Your task to perform on an android device: Play the last video I watched on Youtube Image 0: 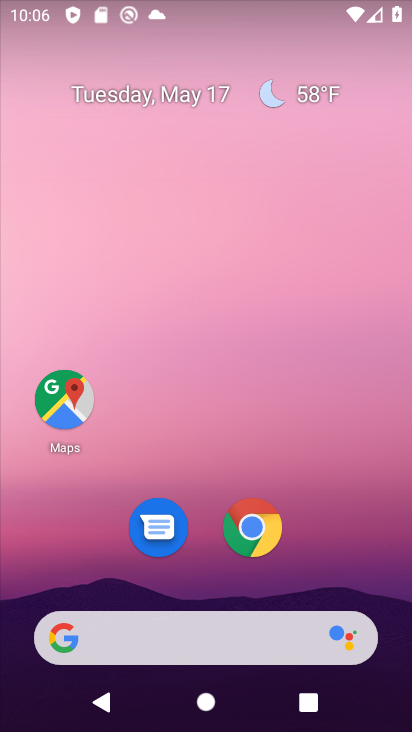
Step 0: drag from (343, 517) to (324, 0)
Your task to perform on an android device: Play the last video I watched on Youtube Image 1: 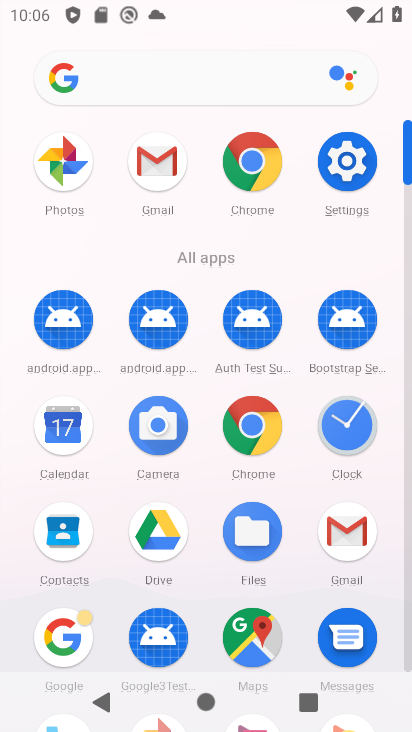
Step 1: drag from (411, 626) to (407, 576)
Your task to perform on an android device: Play the last video I watched on Youtube Image 2: 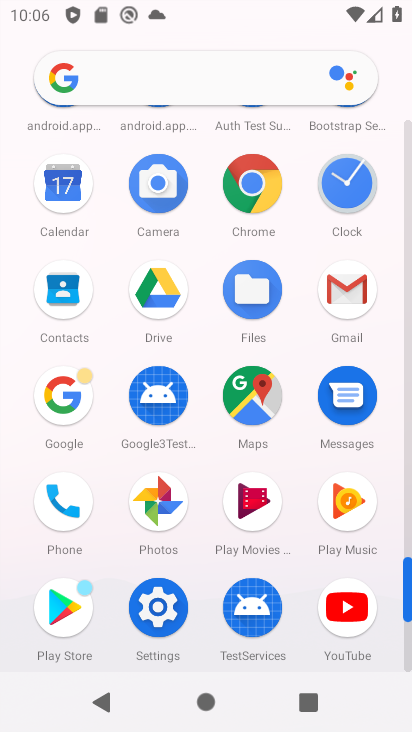
Step 2: click (358, 612)
Your task to perform on an android device: Play the last video I watched on Youtube Image 3: 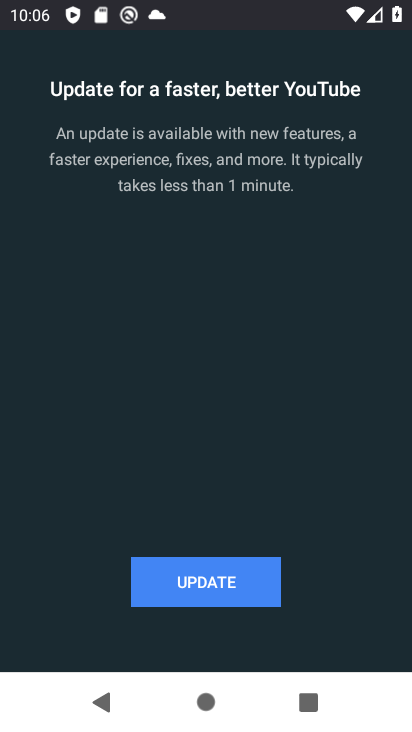
Step 3: click (239, 594)
Your task to perform on an android device: Play the last video I watched on Youtube Image 4: 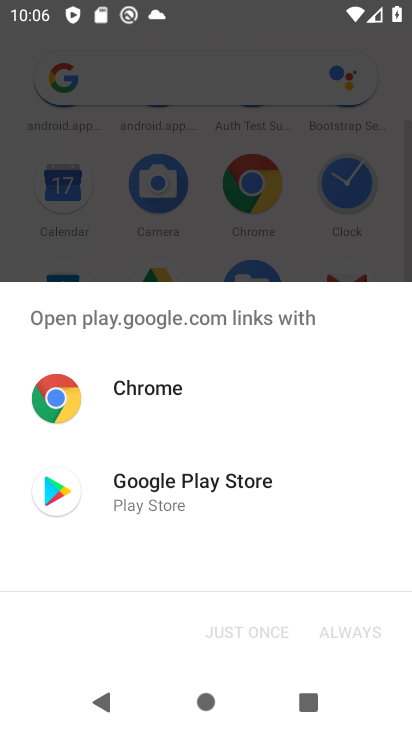
Step 4: click (149, 505)
Your task to perform on an android device: Play the last video I watched on Youtube Image 5: 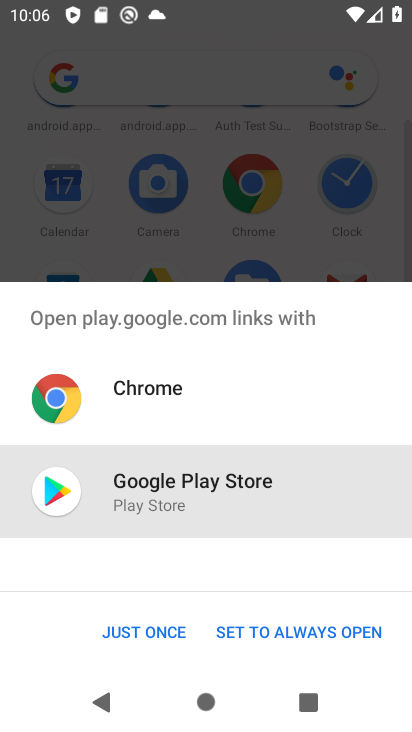
Step 5: click (139, 631)
Your task to perform on an android device: Play the last video I watched on Youtube Image 6: 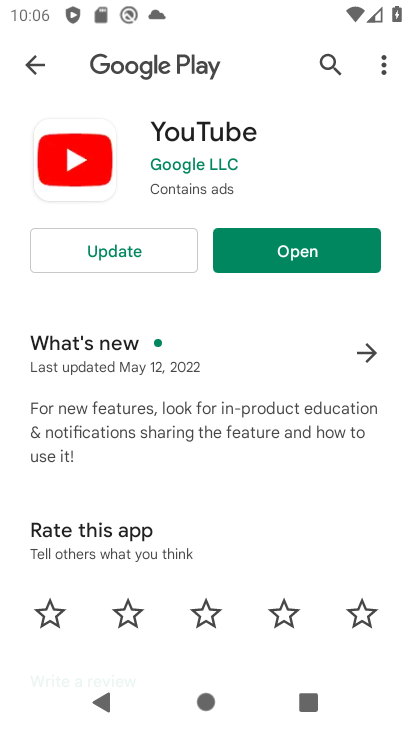
Step 6: click (158, 257)
Your task to perform on an android device: Play the last video I watched on Youtube Image 7: 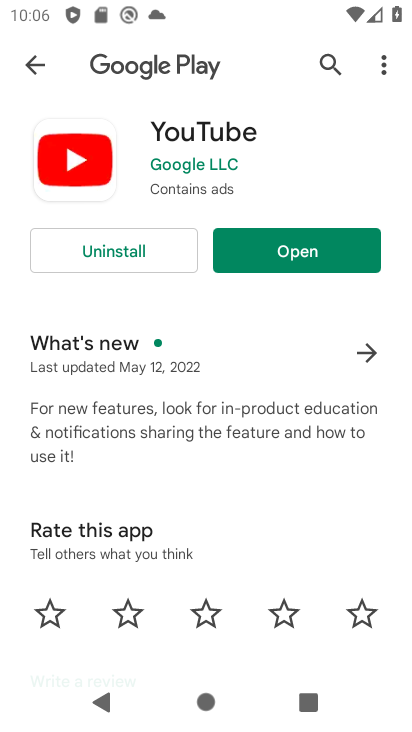
Step 7: click (288, 259)
Your task to perform on an android device: Play the last video I watched on Youtube Image 8: 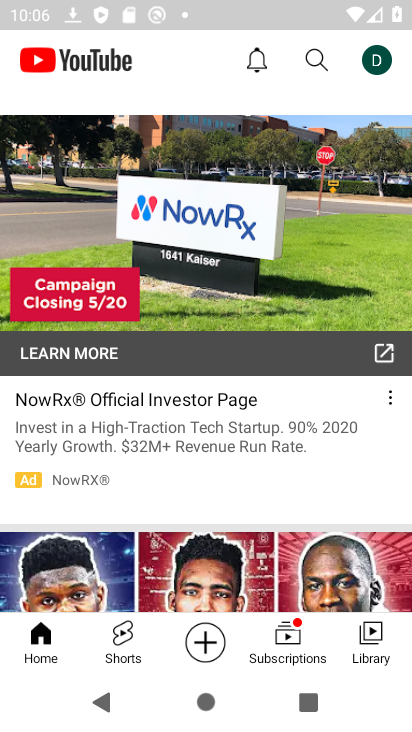
Step 8: click (359, 640)
Your task to perform on an android device: Play the last video I watched on Youtube Image 9: 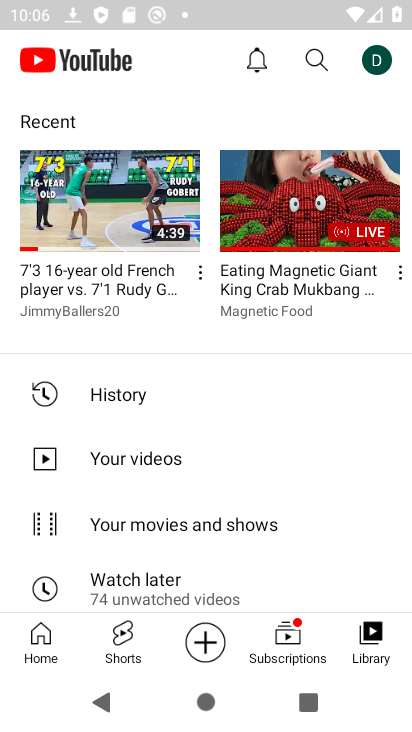
Step 9: click (102, 399)
Your task to perform on an android device: Play the last video I watched on Youtube Image 10: 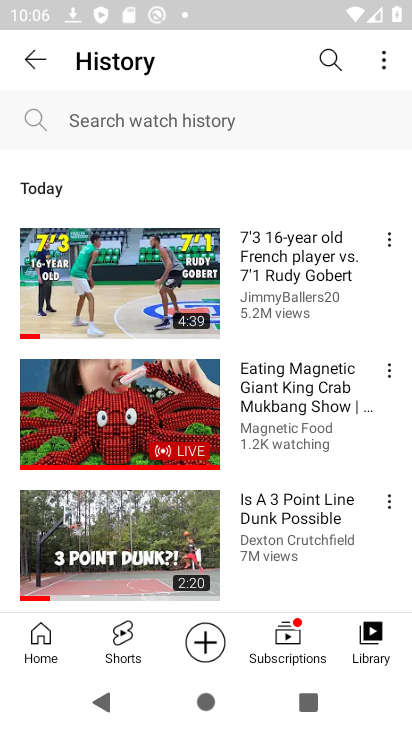
Step 10: click (86, 269)
Your task to perform on an android device: Play the last video I watched on Youtube Image 11: 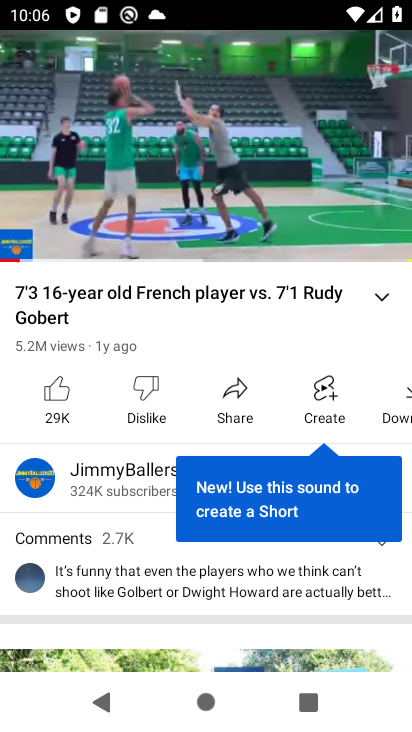
Step 11: click (210, 162)
Your task to perform on an android device: Play the last video I watched on Youtube Image 12: 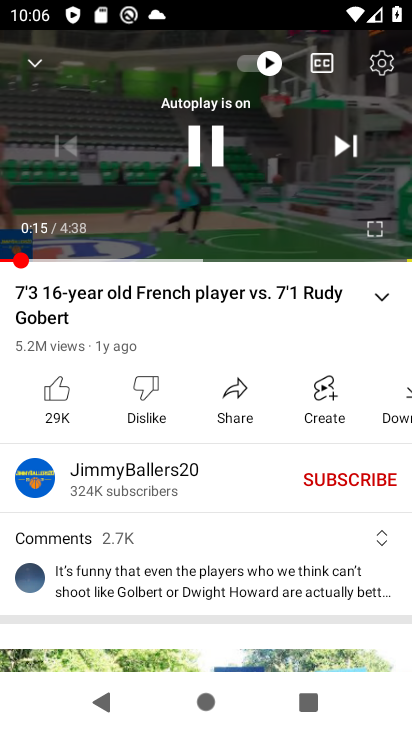
Step 12: click (210, 160)
Your task to perform on an android device: Play the last video I watched on Youtube Image 13: 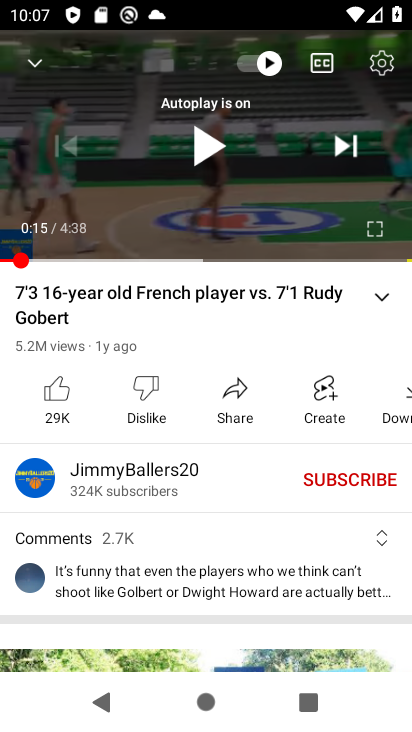
Step 13: task complete